Your task to perform on an android device: change keyboard looks Image 0: 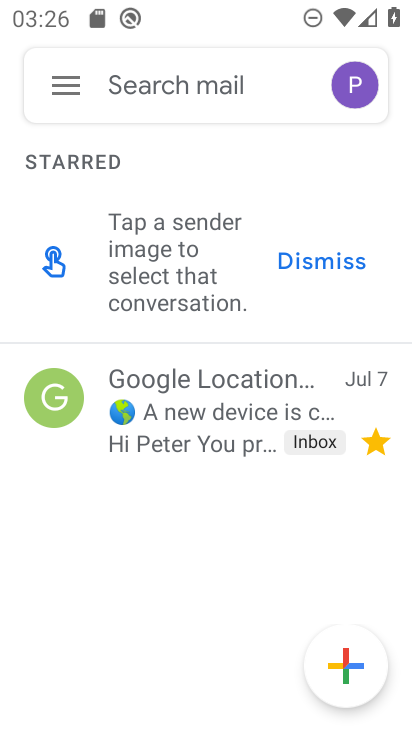
Step 0: press back button
Your task to perform on an android device: change keyboard looks Image 1: 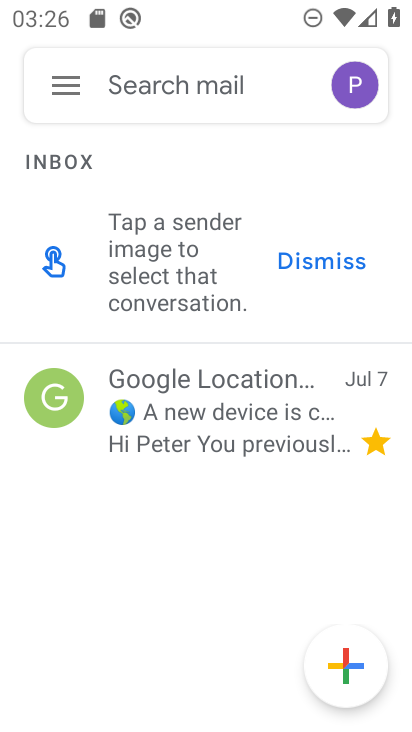
Step 1: press back button
Your task to perform on an android device: change keyboard looks Image 2: 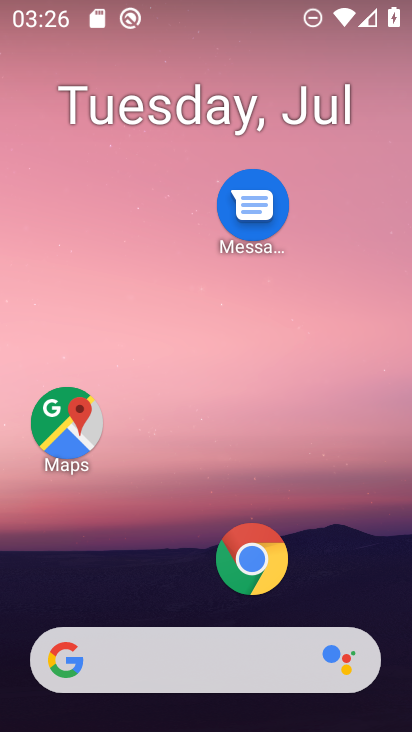
Step 2: drag from (113, 573) to (182, 3)
Your task to perform on an android device: change keyboard looks Image 3: 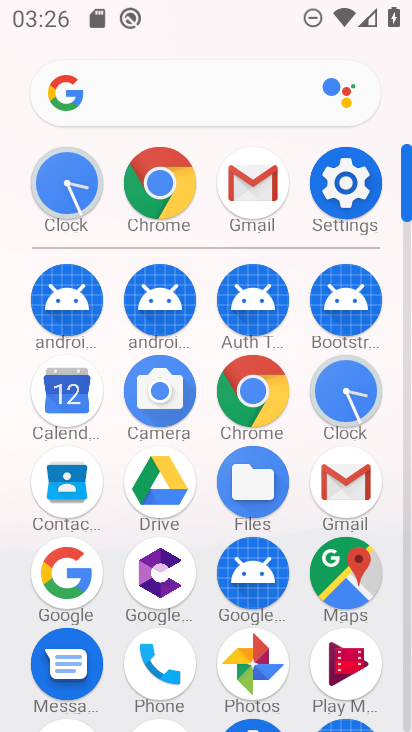
Step 3: click (339, 177)
Your task to perform on an android device: change keyboard looks Image 4: 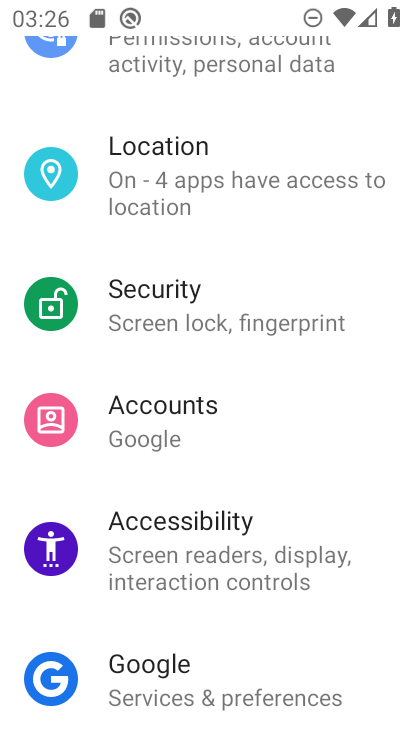
Step 4: drag from (181, 660) to (259, 15)
Your task to perform on an android device: change keyboard looks Image 5: 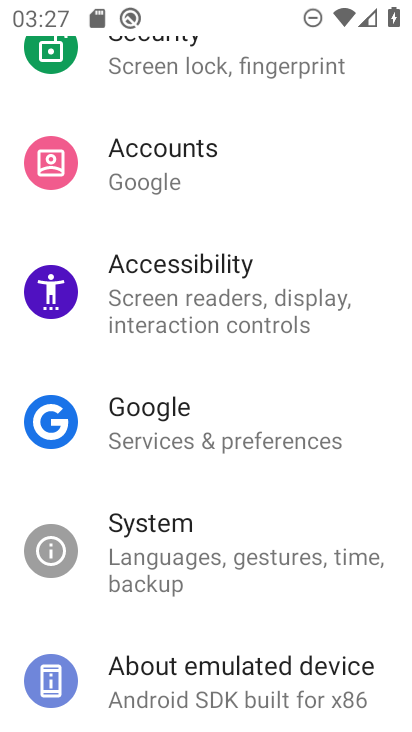
Step 5: click (196, 569)
Your task to perform on an android device: change keyboard looks Image 6: 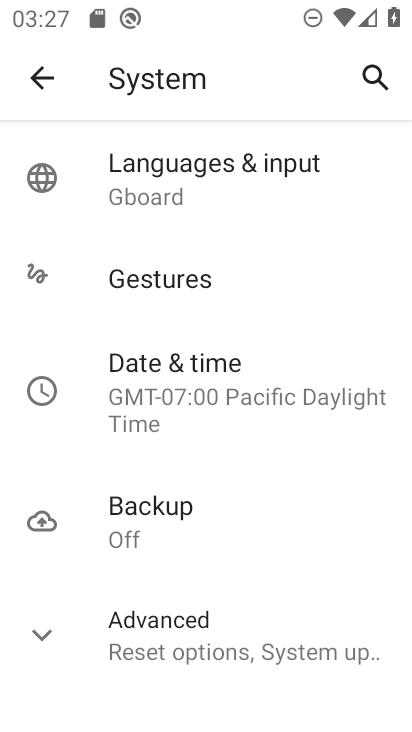
Step 6: click (154, 171)
Your task to perform on an android device: change keyboard looks Image 7: 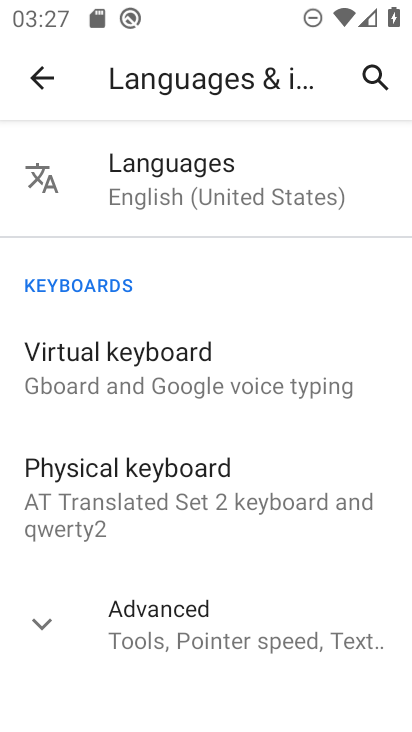
Step 7: click (125, 384)
Your task to perform on an android device: change keyboard looks Image 8: 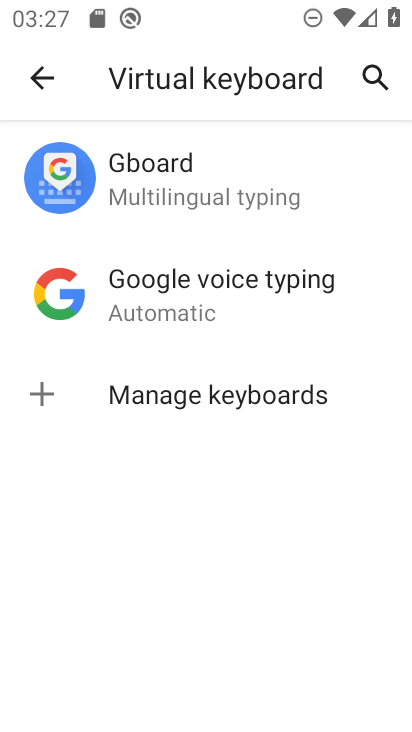
Step 8: click (150, 201)
Your task to perform on an android device: change keyboard looks Image 9: 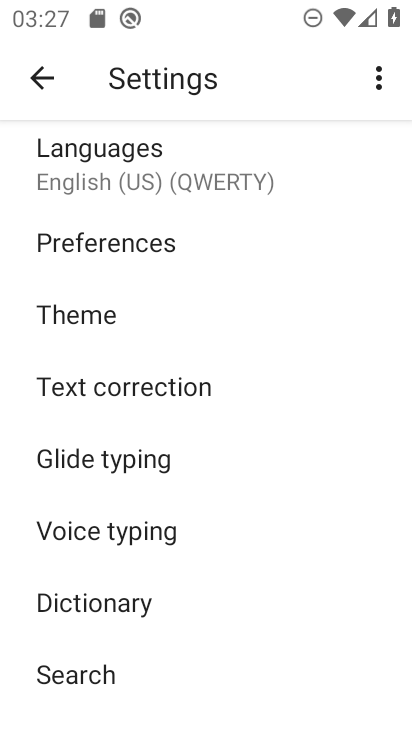
Step 9: click (76, 312)
Your task to perform on an android device: change keyboard looks Image 10: 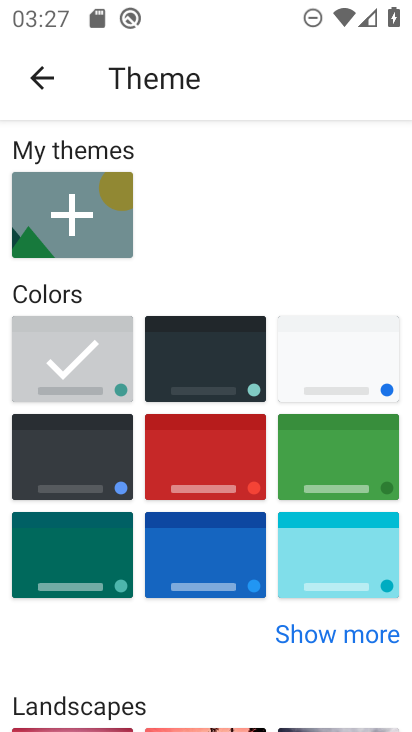
Step 10: click (221, 464)
Your task to perform on an android device: change keyboard looks Image 11: 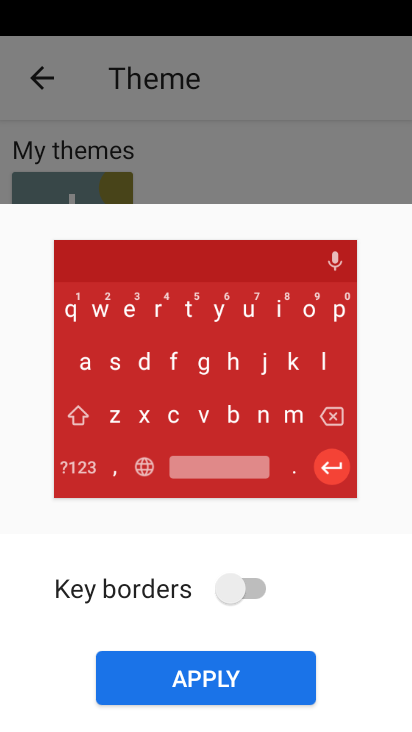
Step 11: click (196, 670)
Your task to perform on an android device: change keyboard looks Image 12: 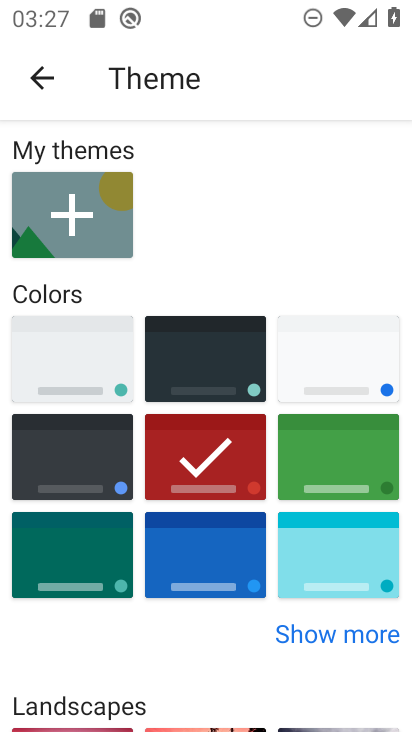
Step 12: task complete